Your task to perform on an android device: Search for sushi restaurants on Maps Image 0: 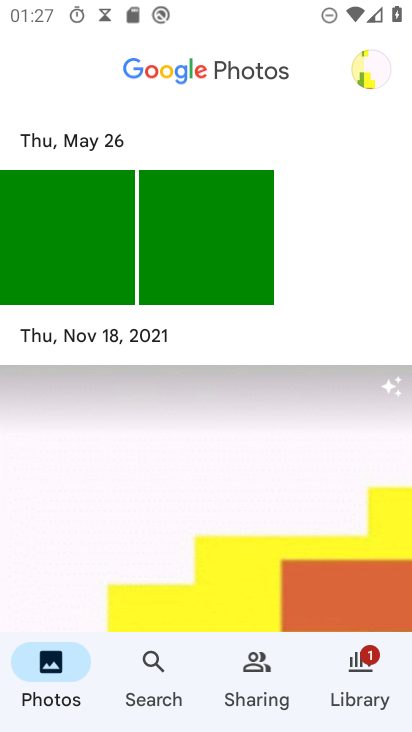
Step 0: press home button
Your task to perform on an android device: Search for sushi restaurants on Maps Image 1: 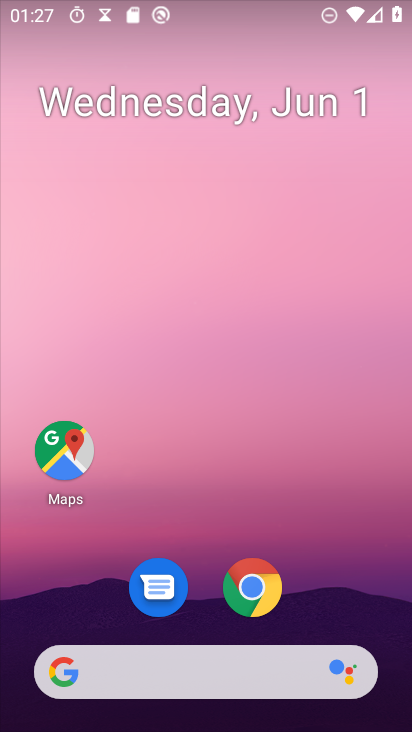
Step 1: click (51, 450)
Your task to perform on an android device: Search for sushi restaurants on Maps Image 2: 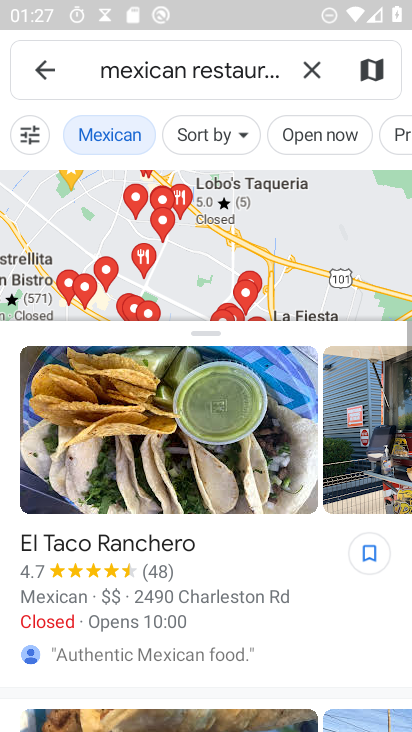
Step 2: click (307, 65)
Your task to perform on an android device: Search for sushi restaurants on Maps Image 3: 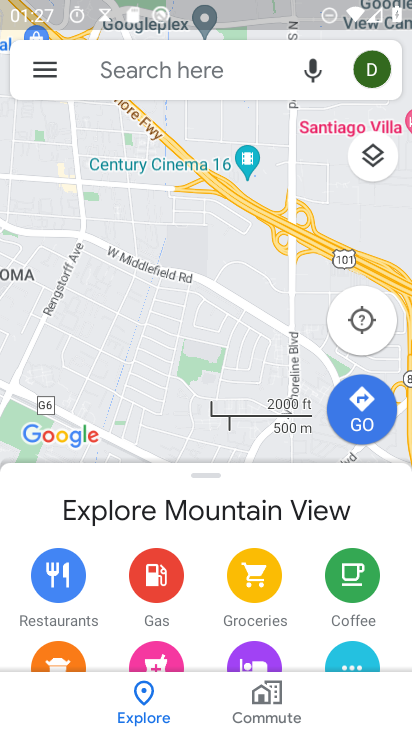
Step 3: click (189, 73)
Your task to perform on an android device: Search for sushi restaurants on Maps Image 4: 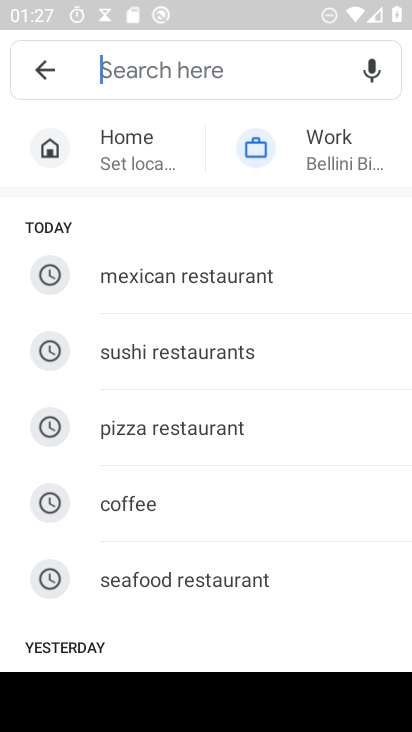
Step 4: type "sushi restaurants"
Your task to perform on an android device: Search for sushi restaurants on Maps Image 5: 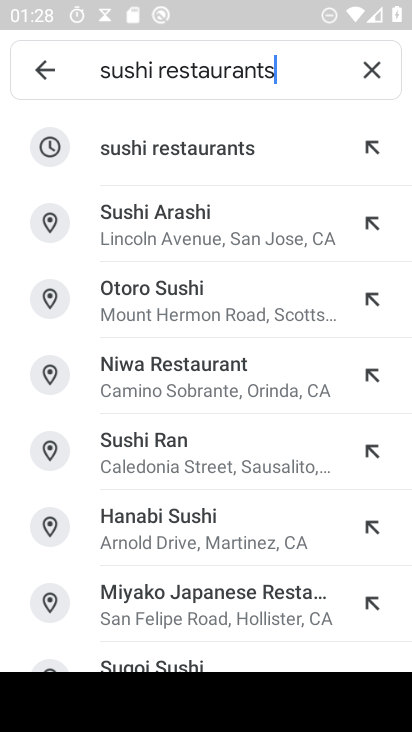
Step 5: click (109, 140)
Your task to perform on an android device: Search for sushi restaurants on Maps Image 6: 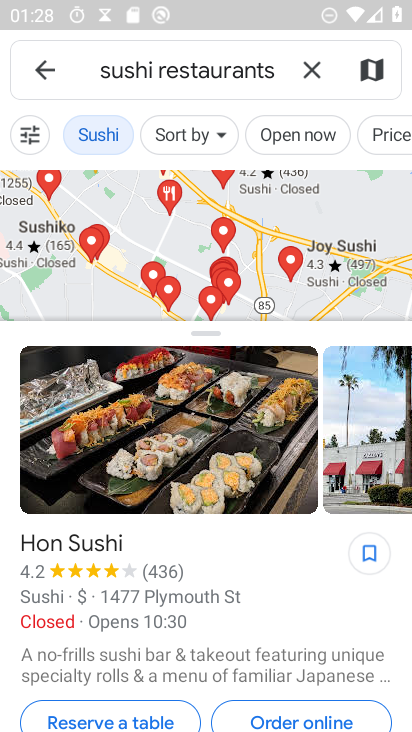
Step 6: task complete